Your task to perform on an android device: check data usage Image 0: 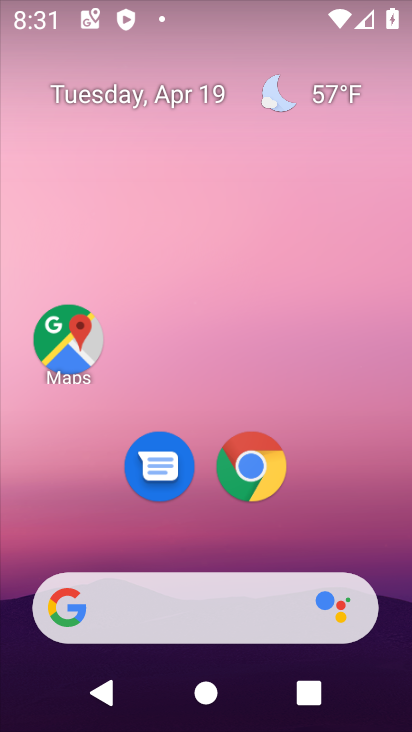
Step 0: drag from (210, 717) to (213, 28)
Your task to perform on an android device: check data usage Image 1: 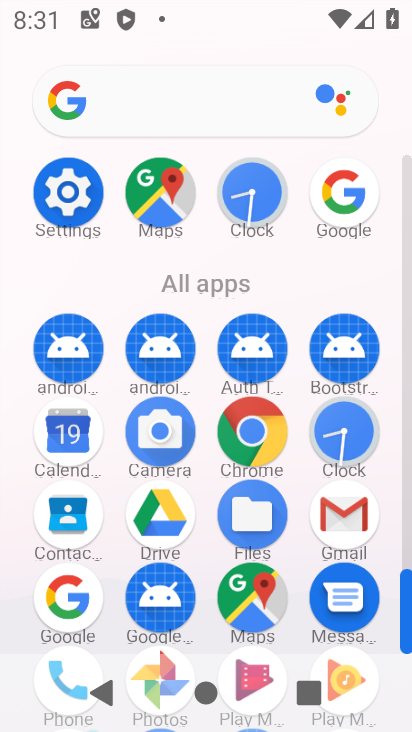
Step 1: click (73, 192)
Your task to perform on an android device: check data usage Image 2: 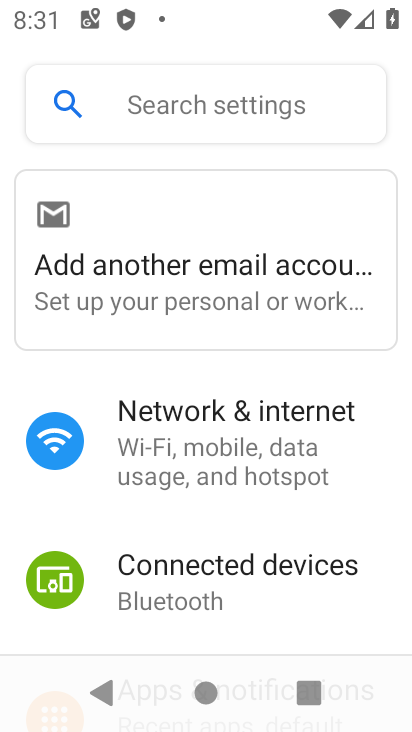
Step 2: click (193, 439)
Your task to perform on an android device: check data usage Image 3: 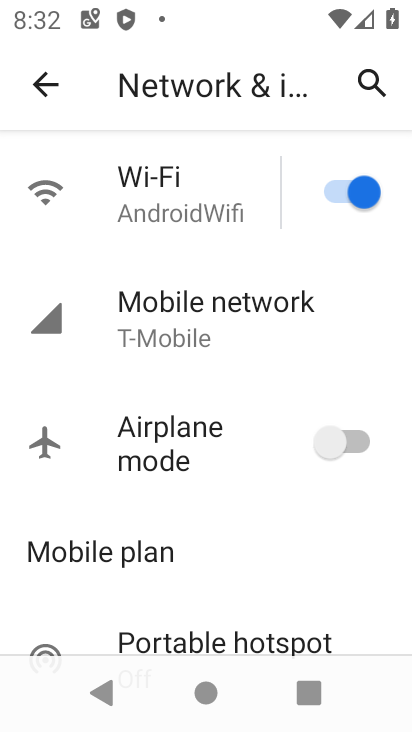
Step 3: click (183, 314)
Your task to perform on an android device: check data usage Image 4: 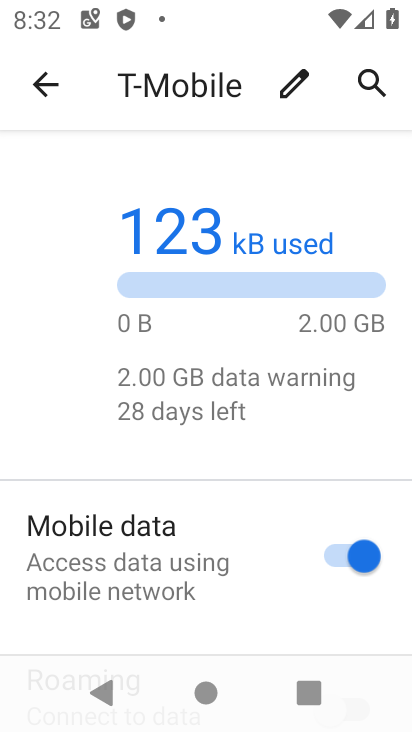
Step 4: drag from (161, 620) to (167, 146)
Your task to perform on an android device: check data usage Image 5: 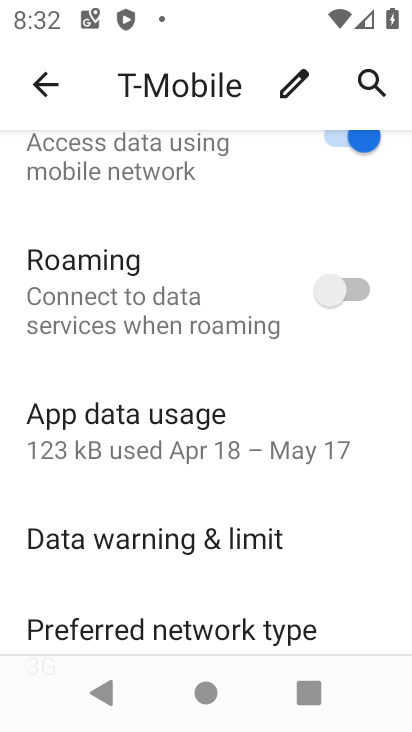
Step 5: click (149, 420)
Your task to perform on an android device: check data usage Image 6: 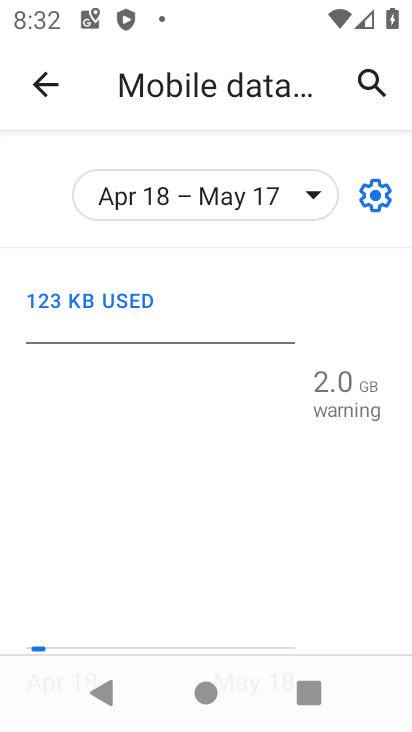
Step 6: task complete